Your task to perform on an android device: search for starred emails in the gmail app Image 0: 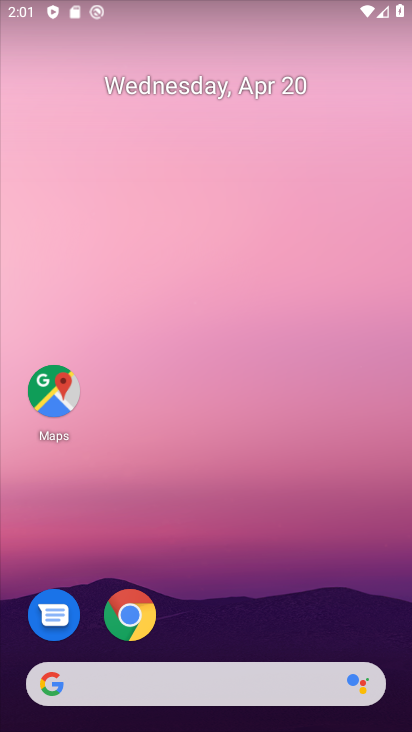
Step 0: drag from (275, 485) to (277, 20)
Your task to perform on an android device: search for starred emails in the gmail app Image 1: 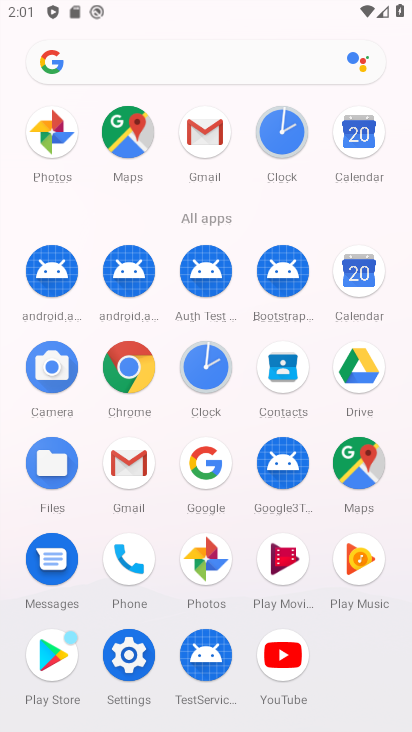
Step 1: click (212, 133)
Your task to perform on an android device: search for starred emails in the gmail app Image 2: 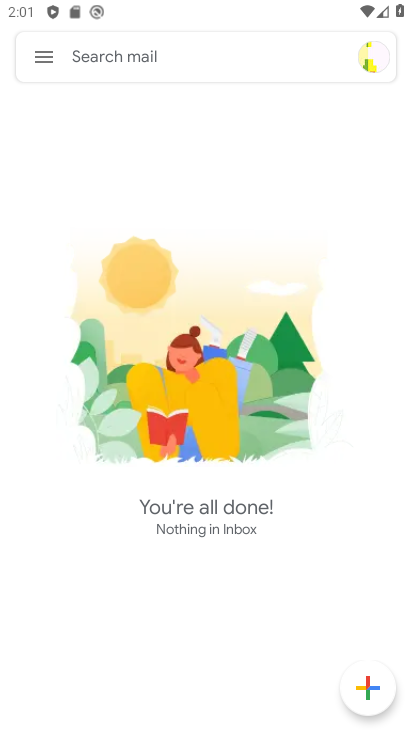
Step 2: click (42, 62)
Your task to perform on an android device: search for starred emails in the gmail app Image 3: 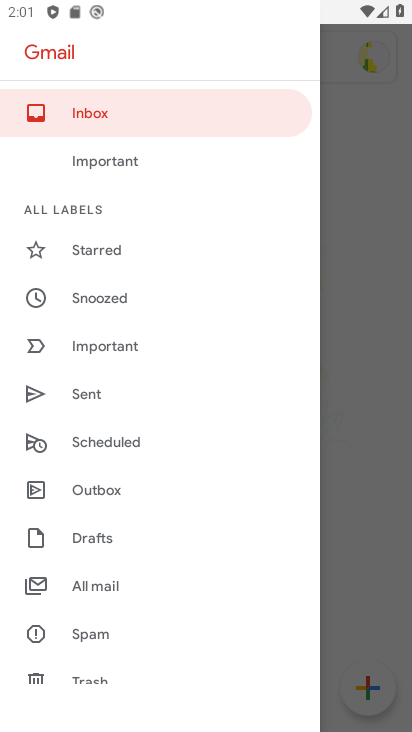
Step 3: click (60, 249)
Your task to perform on an android device: search for starred emails in the gmail app Image 4: 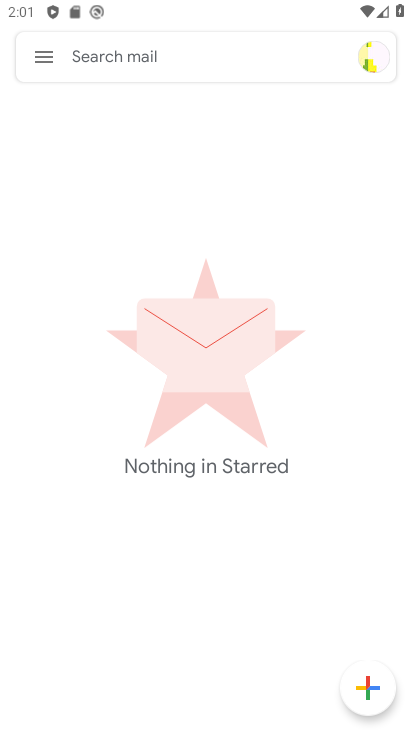
Step 4: task complete